Your task to perform on an android device: toggle translation in the chrome app Image 0: 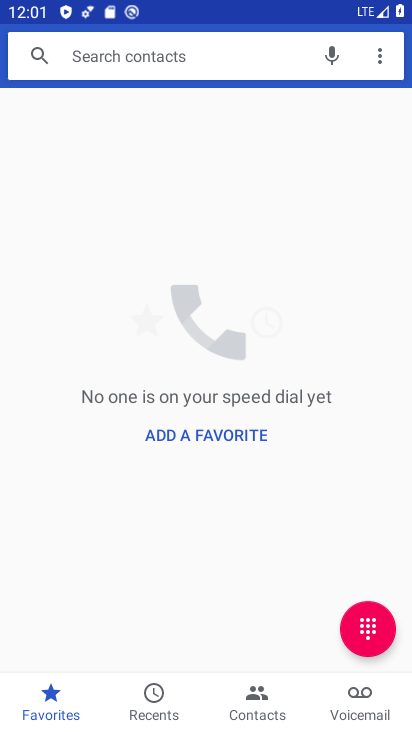
Step 0: press back button
Your task to perform on an android device: toggle translation in the chrome app Image 1: 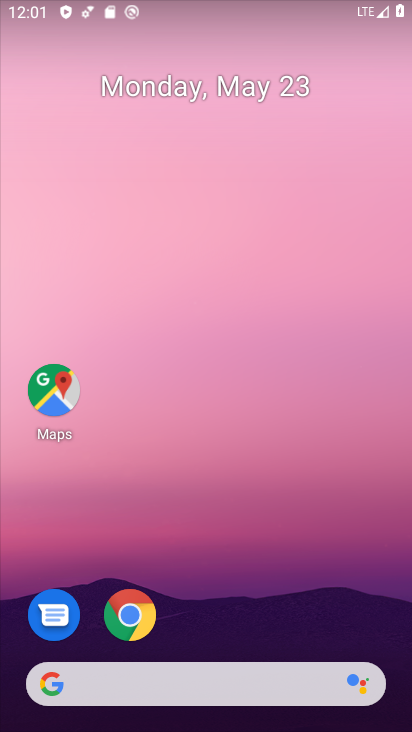
Step 1: click (125, 594)
Your task to perform on an android device: toggle translation in the chrome app Image 2: 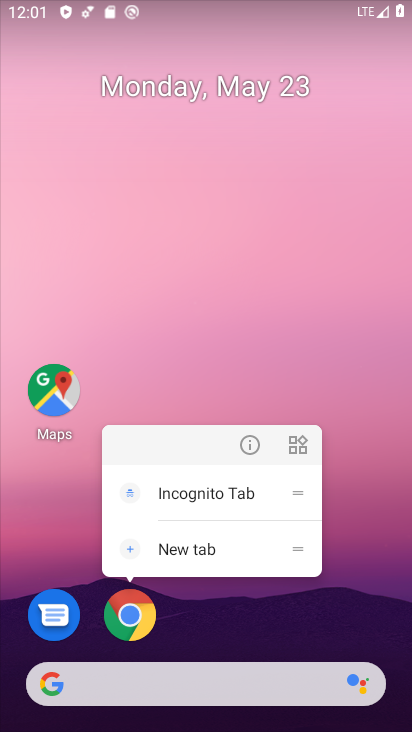
Step 2: click (125, 616)
Your task to perform on an android device: toggle translation in the chrome app Image 3: 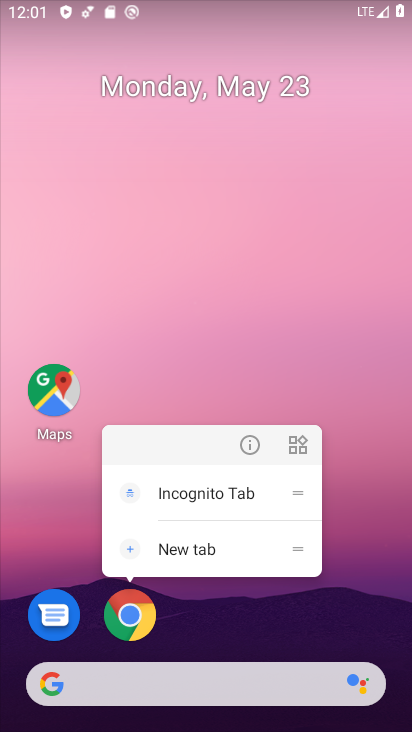
Step 3: click (126, 616)
Your task to perform on an android device: toggle translation in the chrome app Image 4: 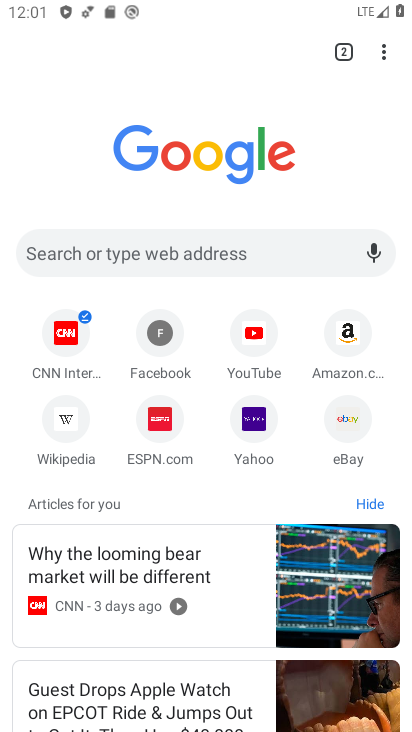
Step 4: drag from (384, 56) to (212, 440)
Your task to perform on an android device: toggle translation in the chrome app Image 5: 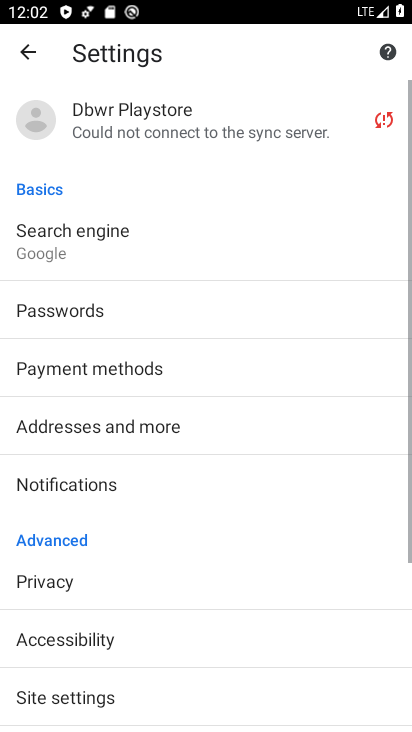
Step 5: drag from (147, 678) to (246, 280)
Your task to perform on an android device: toggle translation in the chrome app Image 6: 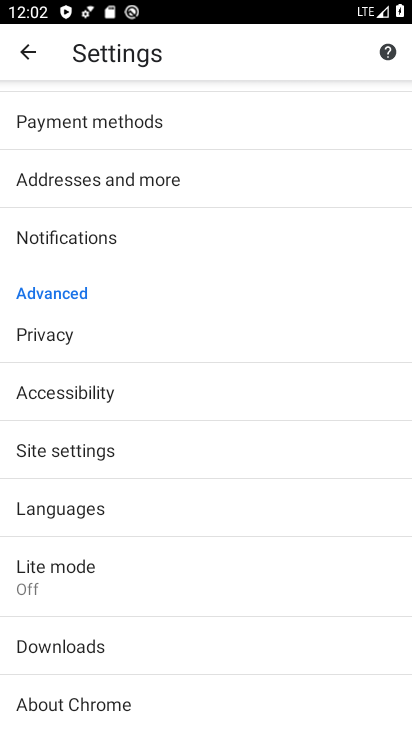
Step 6: click (115, 513)
Your task to perform on an android device: toggle translation in the chrome app Image 7: 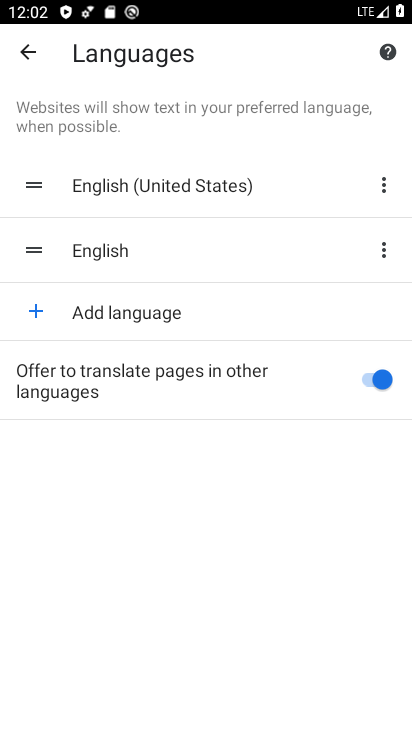
Step 7: click (375, 377)
Your task to perform on an android device: toggle translation in the chrome app Image 8: 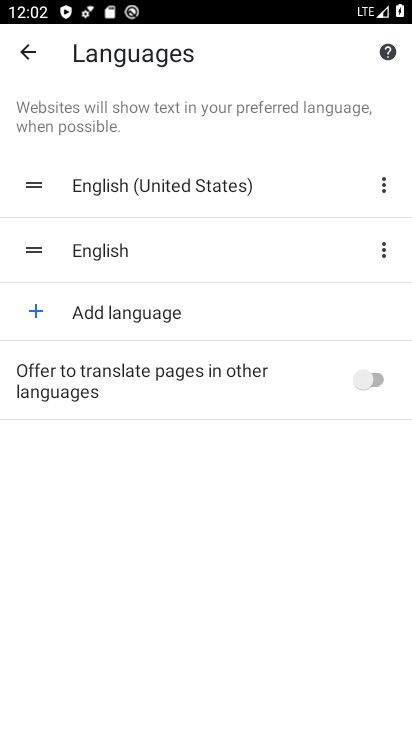
Step 8: task complete